Your task to perform on an android device: Open location settings Image 0: 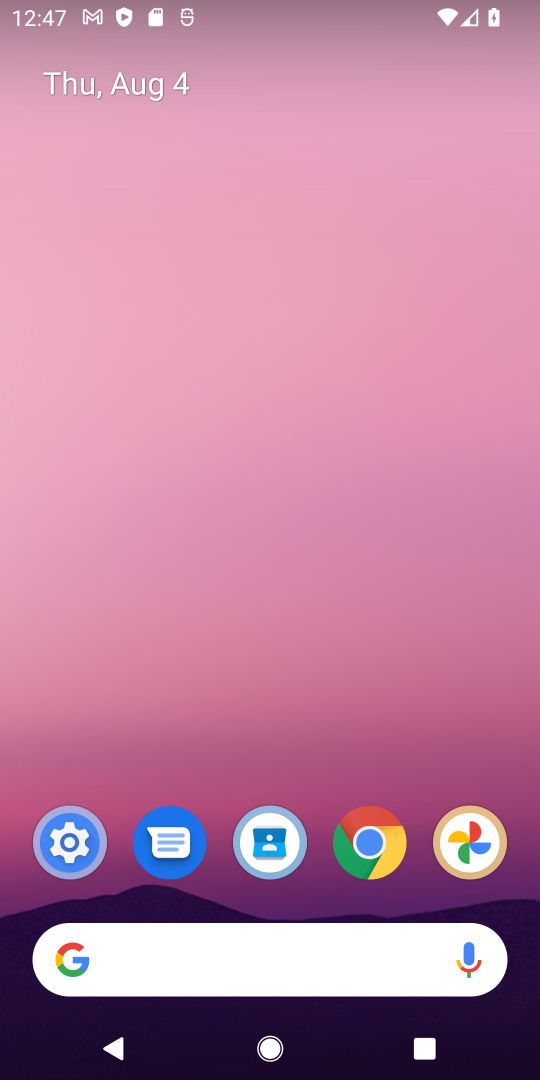
Step 0: click (79, 846)
Your task to perform on an android device: Open location settings Image 1: 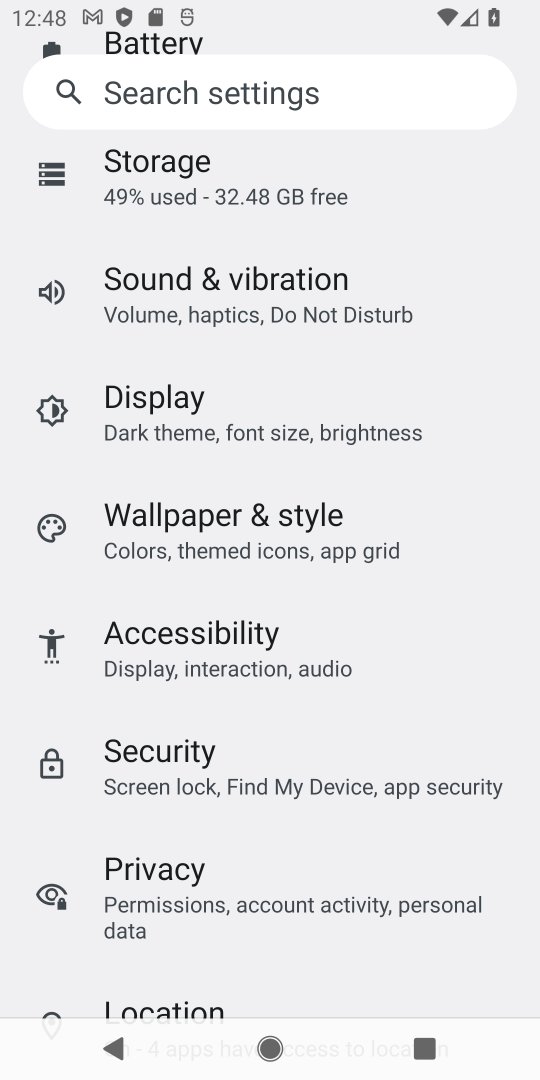
Step 1: click (228, 994)
Your task to perform on an android device: Open location settings Image 2: 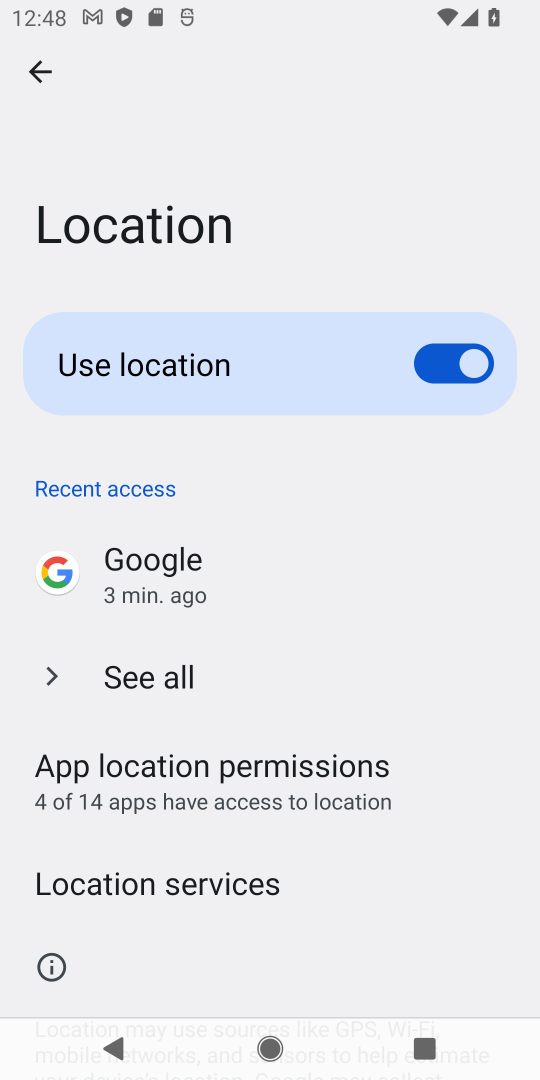
Step 2: task complete